Your task to perform on an android device: remove spam from my inbox in the gmail app Image 0: 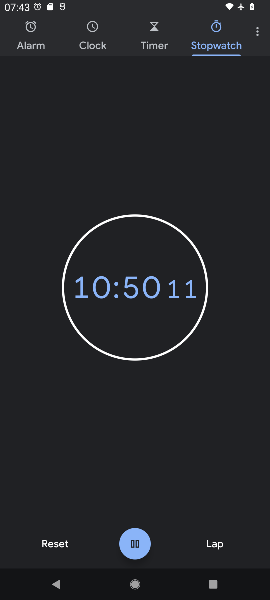
Step 0: press home button
Your task to perform on an android device: remove spam from my inbox in the gmail app Image 1: 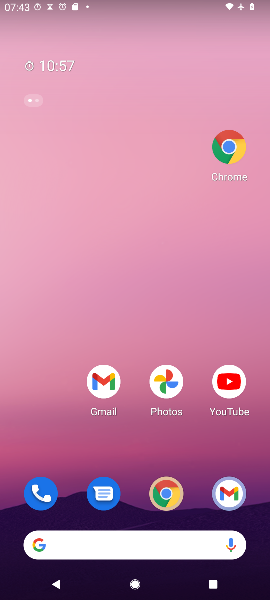
Step 1: click (120, 386)
Your task to perform on an android device: remove spam from my inbox in the gmail app Image 2: 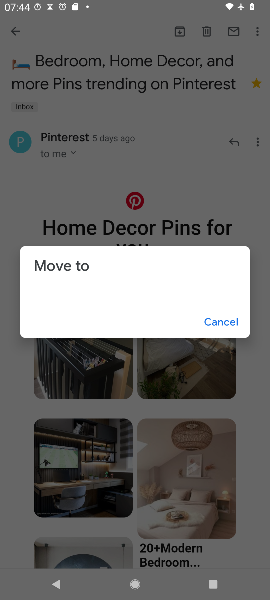
Step 2: click (217, 320)
Your task to perform on an android device: remove spam from my inbox in the gmail app Image 3: 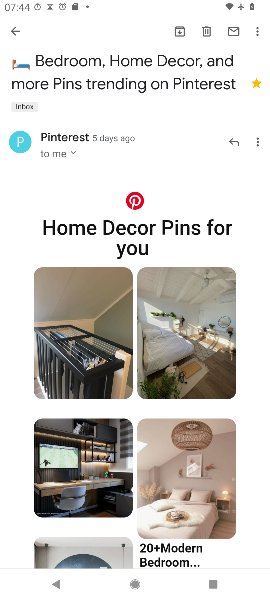
Step 3: click (10, 32)
Your task to perform on an android device: remove spam from my inbox in the gmail app Image 4: 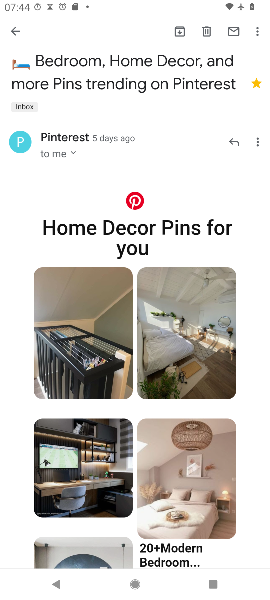
Step 4: click (14, 35)
Your task to perform on an android device: remove spam from my inbox in the gmail app Image 5: 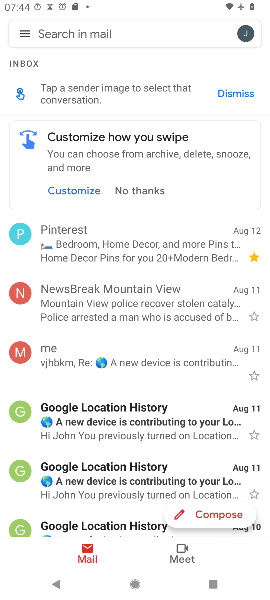
Step 5: click (248, 32)
Your task to perform on an android device: remove spam from my inbox in the gmail app Image 6: 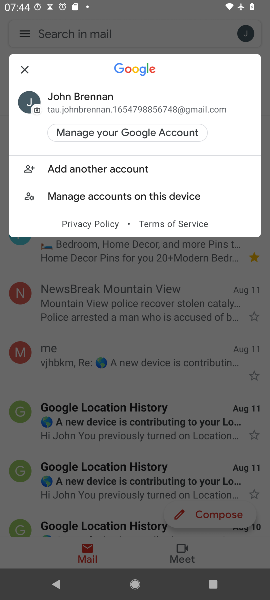
Step 6: click (243, 35)
Your task to perform on an android device: remove spam from my inbox in the gmail app Image 7: 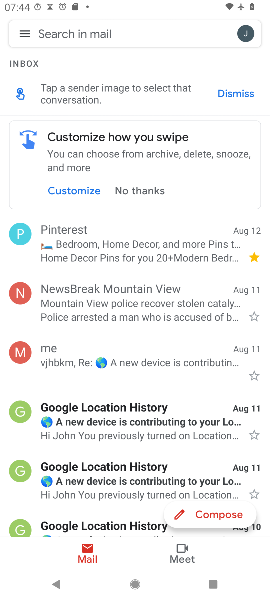
Step 7: click (248, 36)
Your task to perform on an android device: remove spam from my inbox in the gmail app Image 8: 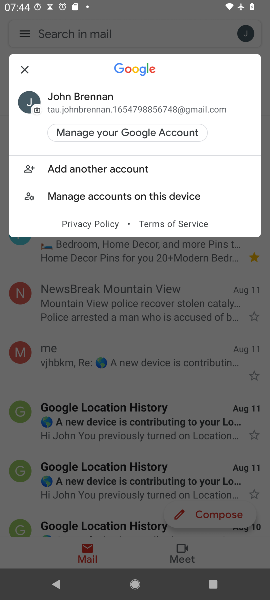
Step 8: click (133, 418)
Your task to perform on an android device: remove spam from my inbox in the gmail app Image 9: 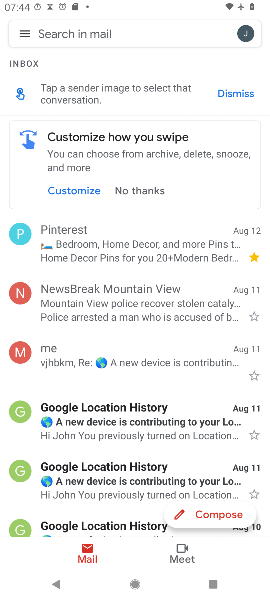
Step 9: click (22, 32)
Your task to perform on an android device: remove spam from my inbox in the gmail app Image 10: 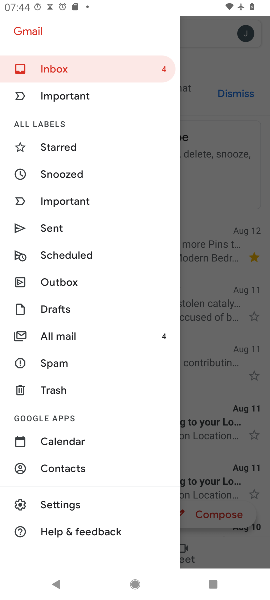
Step 10: click (61, 65)
Your task to perform on an android device: remove spam from my inbox in the gmail app Image 11: 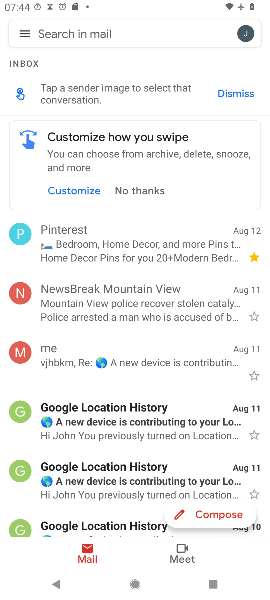
Step 11: click (124, 245)
Your task to perform on an android device: remove spam from my inbox in the gmail app Image 12: 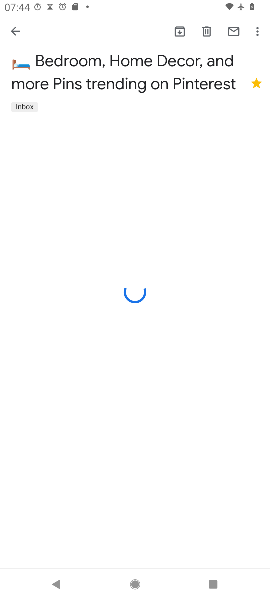
Step 12: click (251, 38)
Your task to perform on an android device: remove spam from my inbox in the gmail app Image 13: 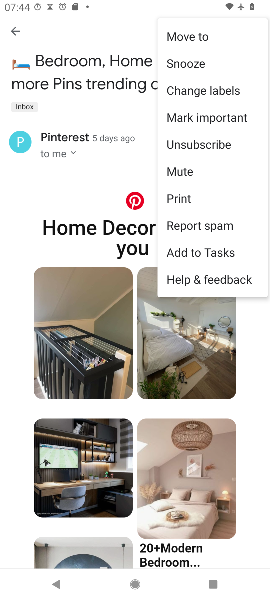
Step 13: click (201, 223)
Your task to perform on an android device: remove spam from my inbox in the gmail app Image 14: 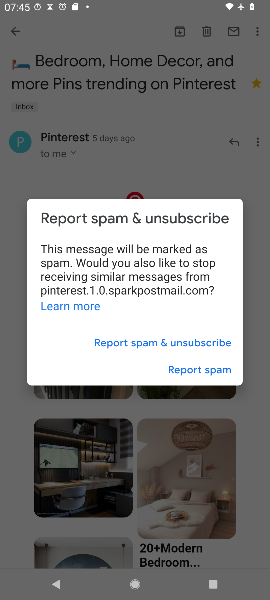
Step 14: click (205, 369)
Your task to perform on an android device: remove spam from my inbox in the gmail app Image 15: 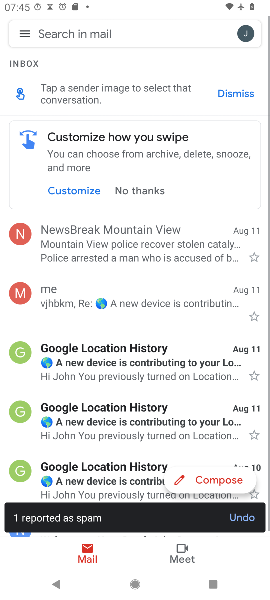
Step 15: task complete